Your task to perform on an android device: add a contact in the contacts app Image 0: 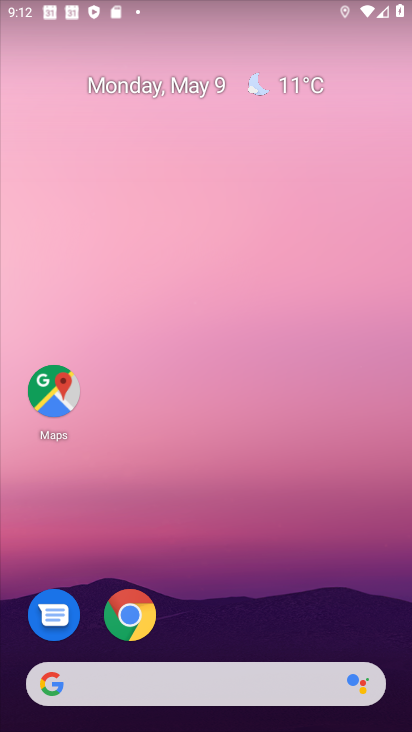
Step 0: drag from (239, 548) to (224, 39)
Your task to perform on an android device: add a contact in the contacts app Image 1: 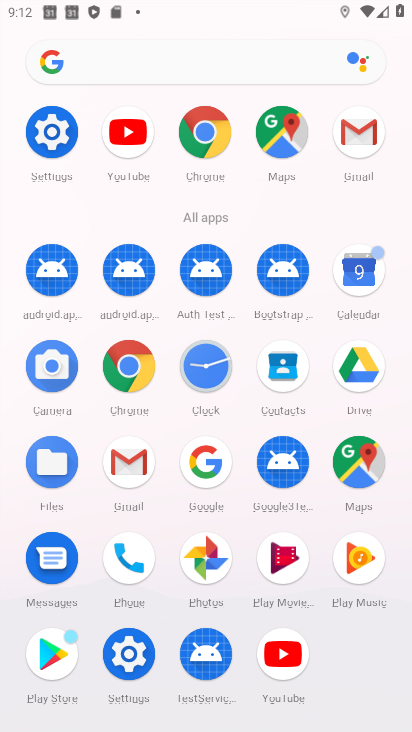
Step 1: click (282, 363)
Your task to perform on an android device: add a contact in the contacts app Image 2: 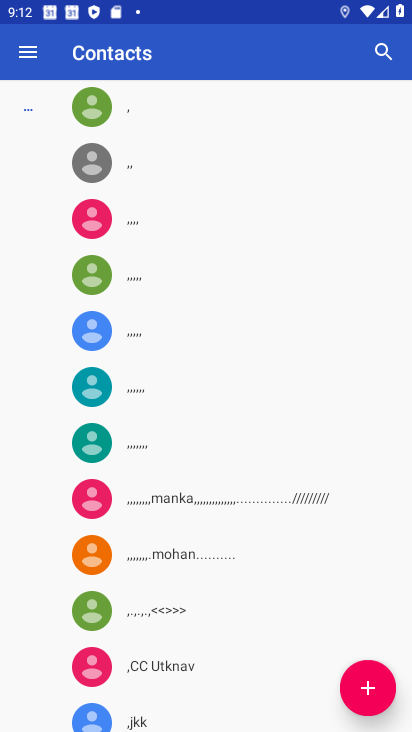
Step 2: click (344, 685)
Your task to perform on an android device: add a contact in the contacts app Image 3: 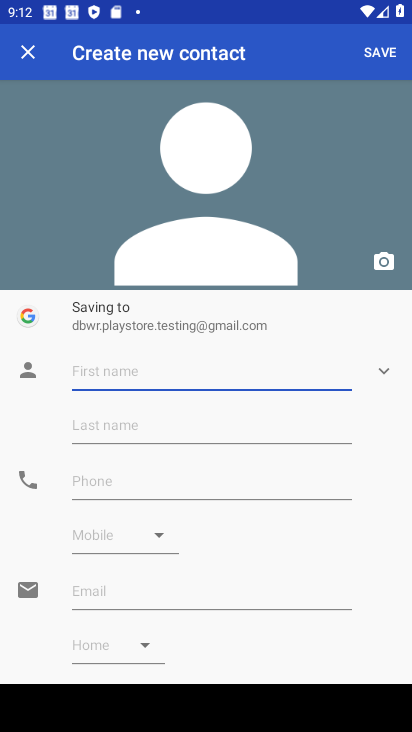
Step 3: type "Sazxd"
Your task to perform on an android device: add a contact in the contacts app Image 4: 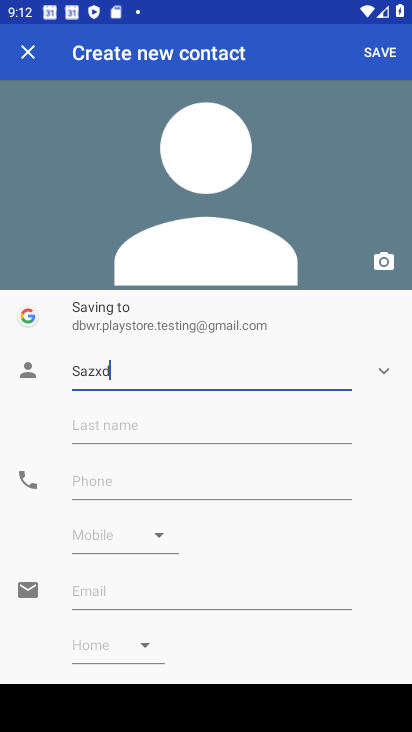
Step 4: type ""
Your task to perform on an android device: add a contact in the contacts app Image 5: 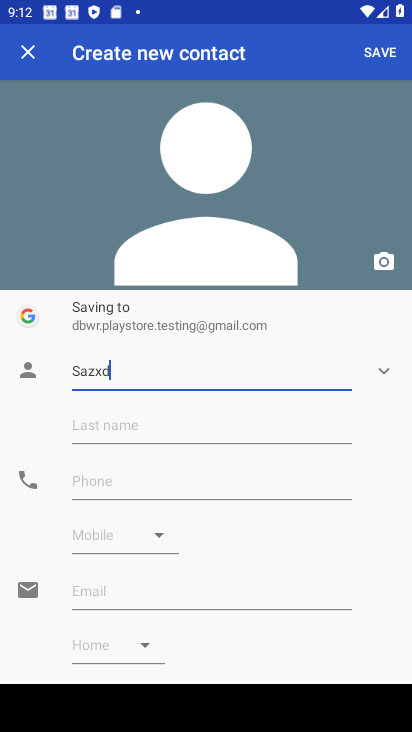
Step 5: click (125, 479)
Your task to perform on an android device: add a contact in the contacts app Image 6: 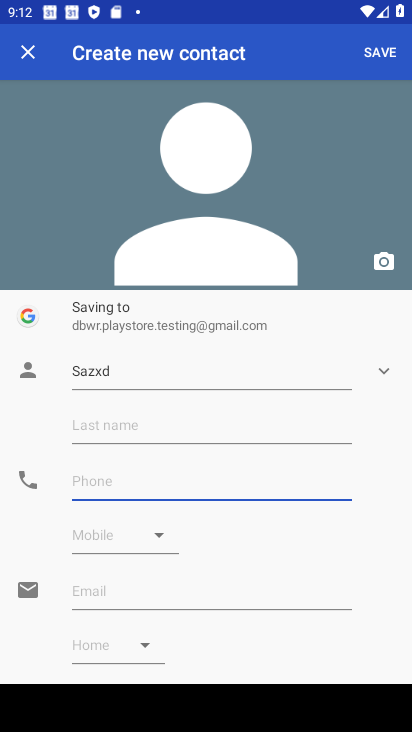
Step 6: type "5454545678"
Your task to perform on an android device: add a contact in the contacts app Image 7: 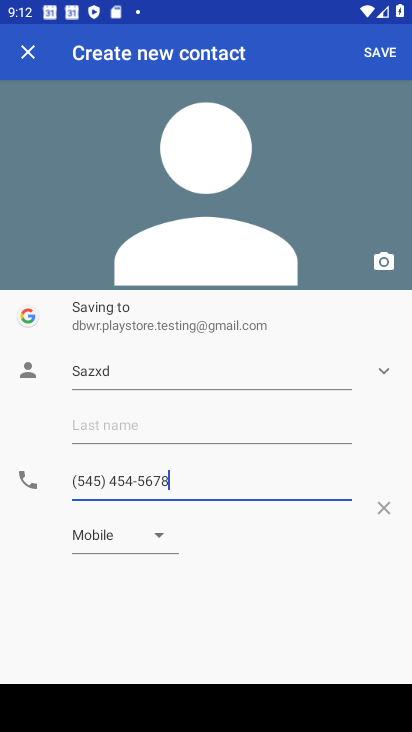
Step 7: type ""
Your task to perform on an android device: add a contact in the contacts app Image 8: 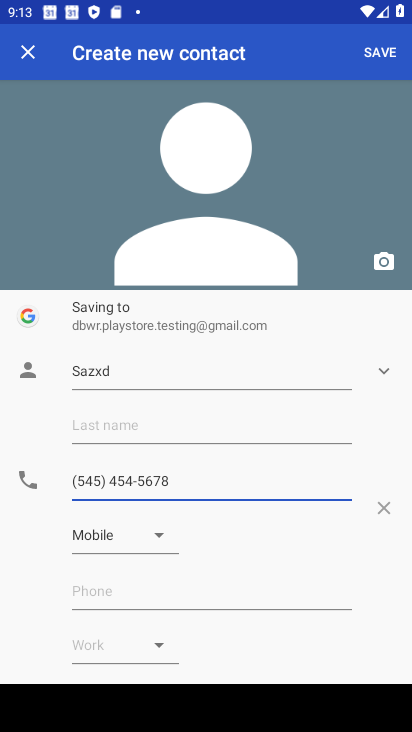
Step 8: click (379, 56)
Your task to perform on an android device: add a contact in the contacts app Image 9: 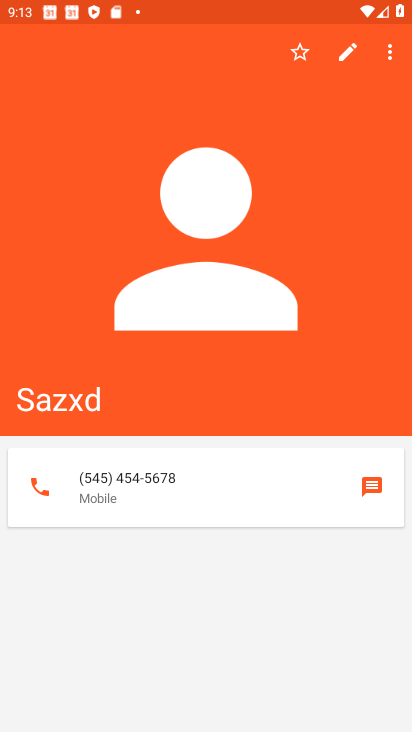
Step 9: task complete